Your task to perform on an android device: change the clock display to show seconds Image 0: 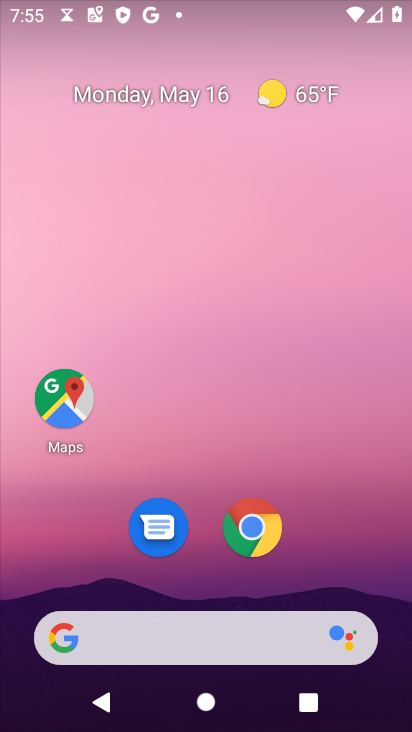
Step 0: drag from (319, 570) to (326, 217)
Your task to perform on an android device: change the clock display to show seconds Image 1: 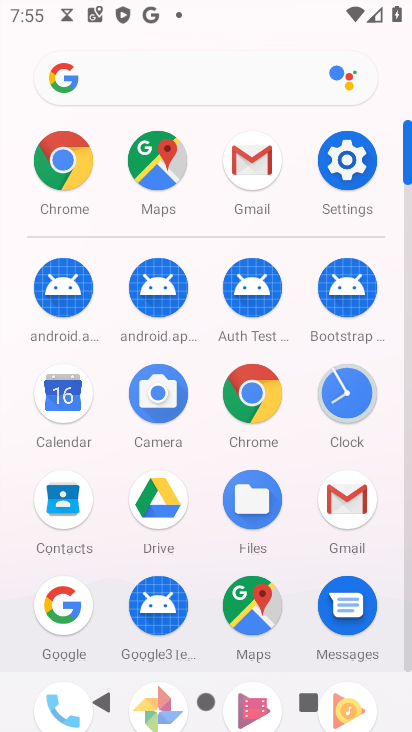
Step 1: click (350, 385)
Your task to perform on an android device: change the clock display to show seconds Image 2: 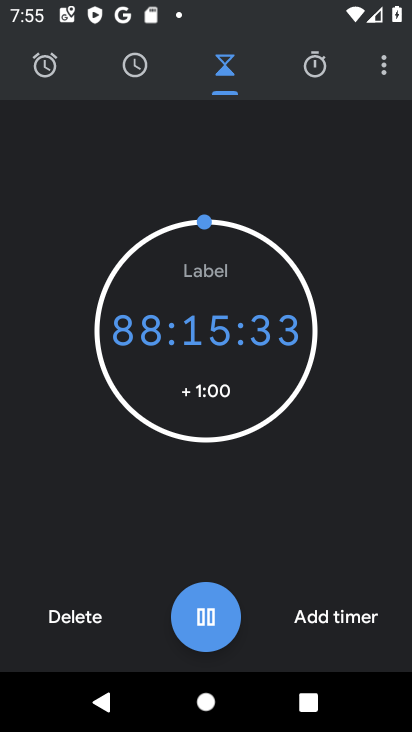
Step 2: click (374, 70)
Your task to perform on an android device: change the clock display to show seconds Image 3: 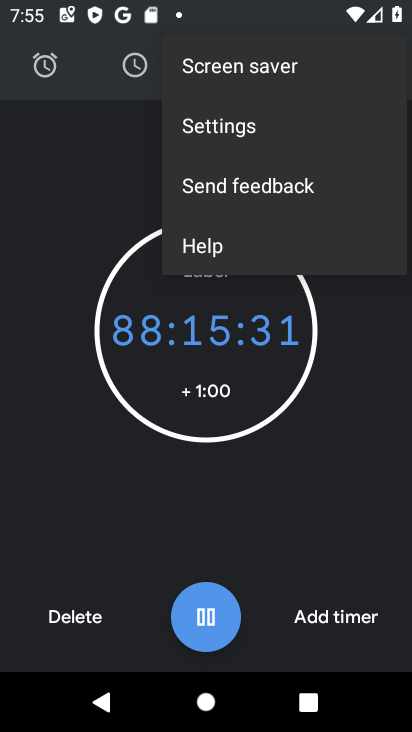
Step 3: click (273, 121)
Your task to perform on an android device: change the clock display to show seconds Image 4: 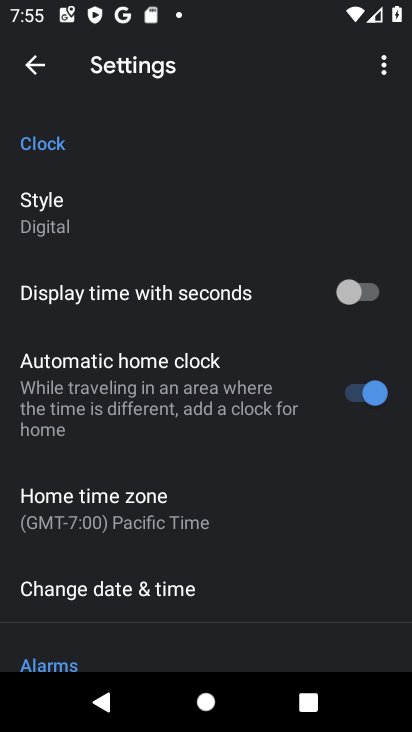
Step 4: click (381, 289)
Your task to perform on an android device: change the clock display to show seconds Image 5: 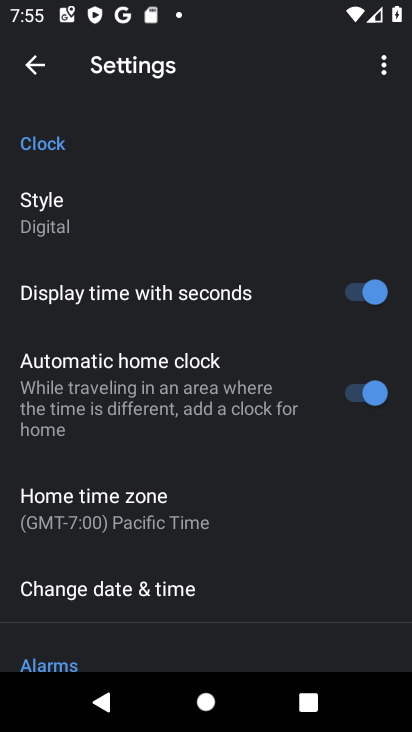
Step 5: task complete